Your task to perform on an android device: Open the web browser Image 0: 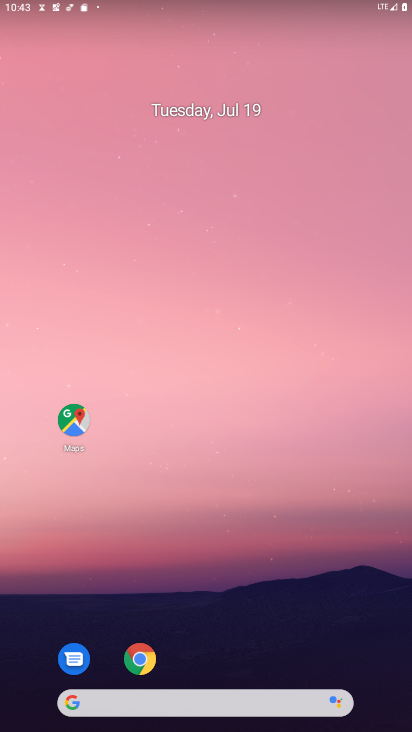
Step 0: drag from (209, 665) to (290, 3)
Your task to perform on an android device: Open the web browser Image 1: 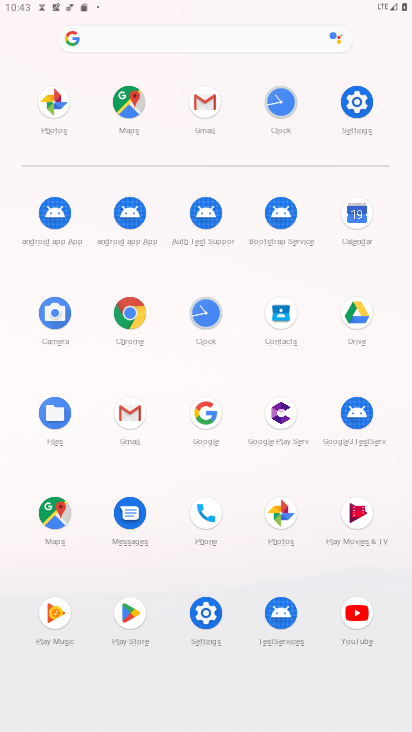
Step 1: click (122, 317)
Your task to perform on an android device: Open the web browser Image 2: 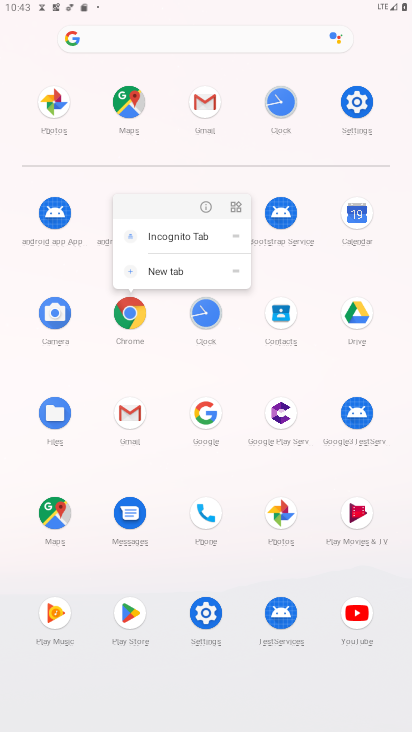
Step 2: click (209, 205)
Your task to perform on an android device: Open the web browser Image 3: 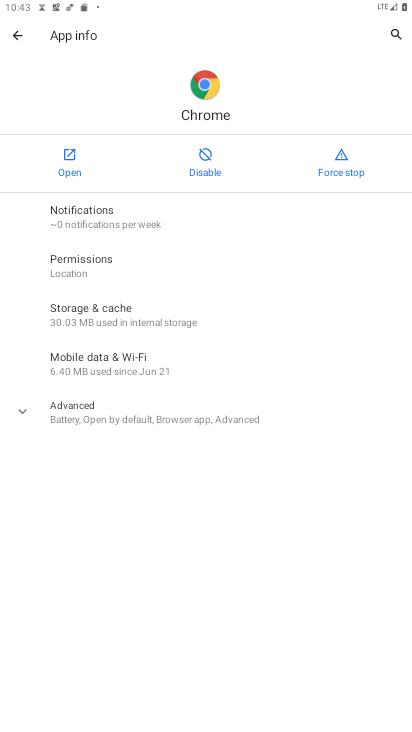
Step 3: click (74, 168)
Your task to perform on an android device: Open the web browser Image 4: 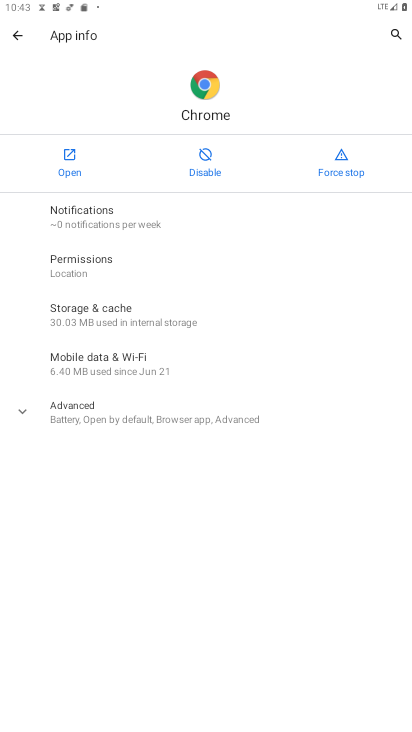
Step 4: click (74, 168)
Your task to perform on an android device: Open the web browser Image 5: 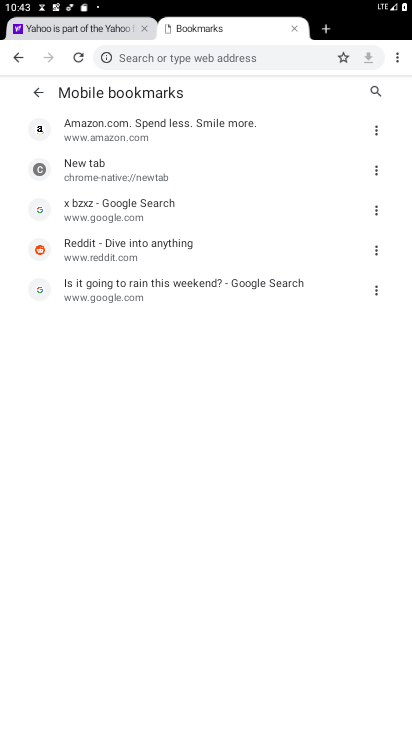
Step 5: task complete